Your task to perform on an android device: toggle location history Image 0: 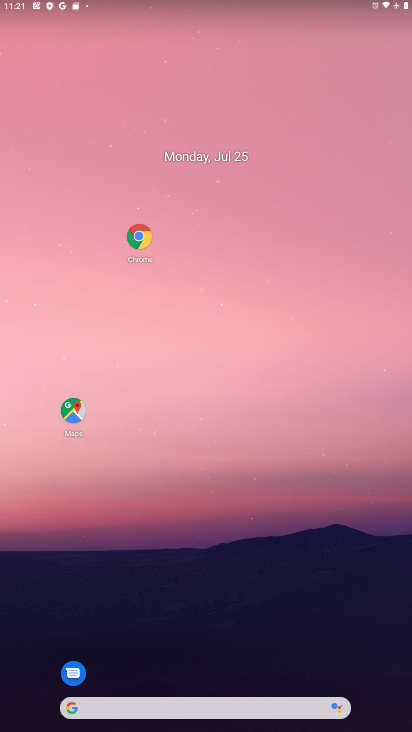
Step 0: drag from (253, 660) to (324, 3)
Your task to perform on an android device: toggle location history Image 1: 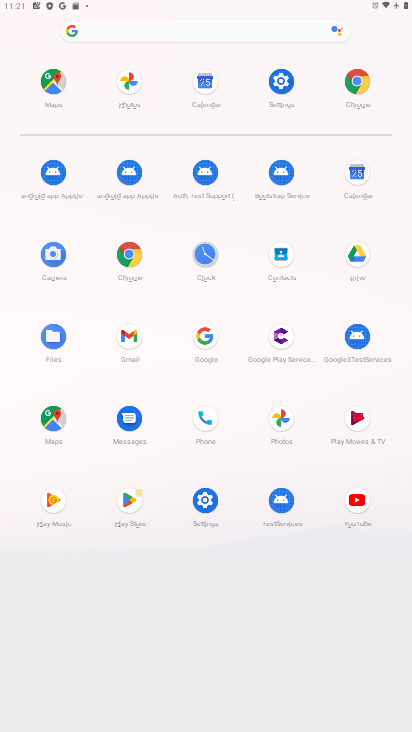
Step 1: click (288, 91)
Your task to perform on an android device: toggle location history Image 2: 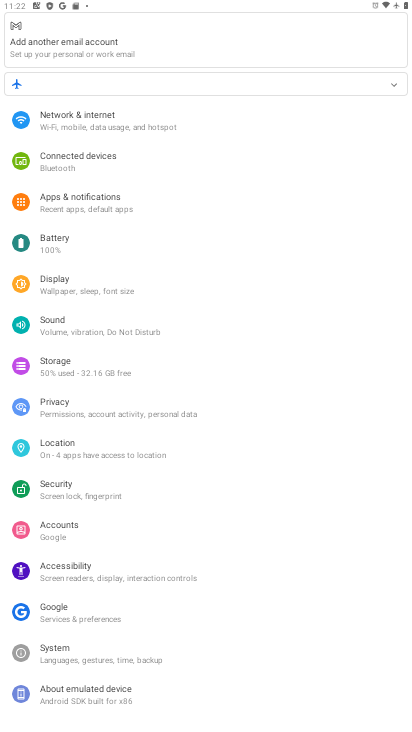
Step 2: click (92, 438)
Your task to perform on an android device: toggle location history Image 3: 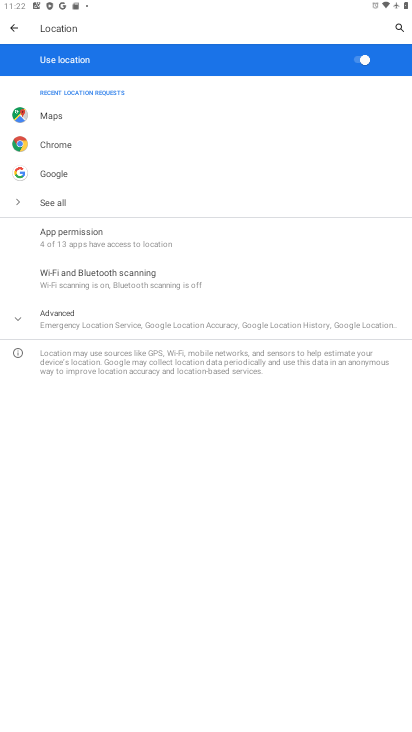
Step 3: click (51, 330)
Your task to perform on an android device: toggle location history Image 4: 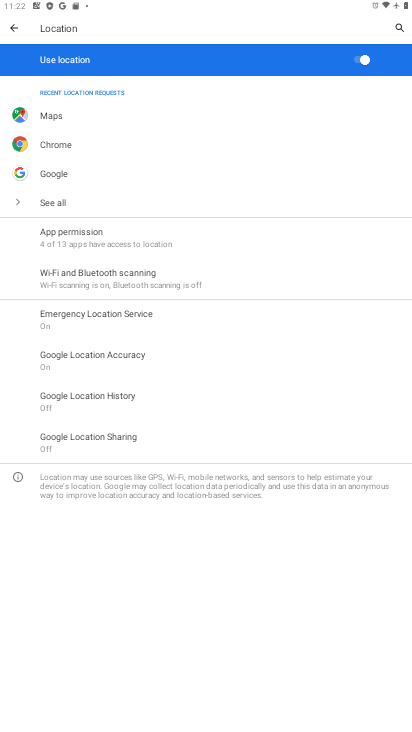
Step 4: task complete